Your task to perform on an android device: Search for Mexican restaurants on Maps Image 0: 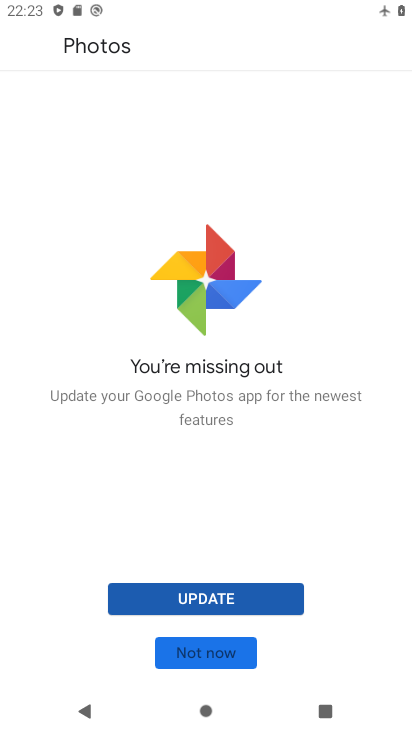
Step 0: press back button
Your task to perform on an android device: Search for Mexican restaurants on Maps Image 1: 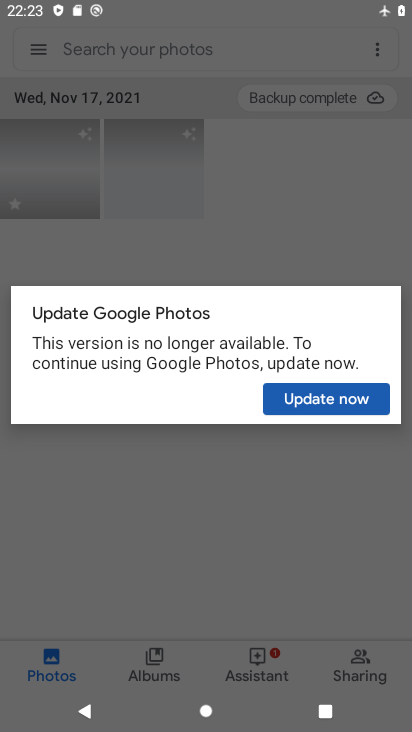
Step 1: press home button
Your task to perform on an android device: Search for Mexican restaurants on Maps Image 2: 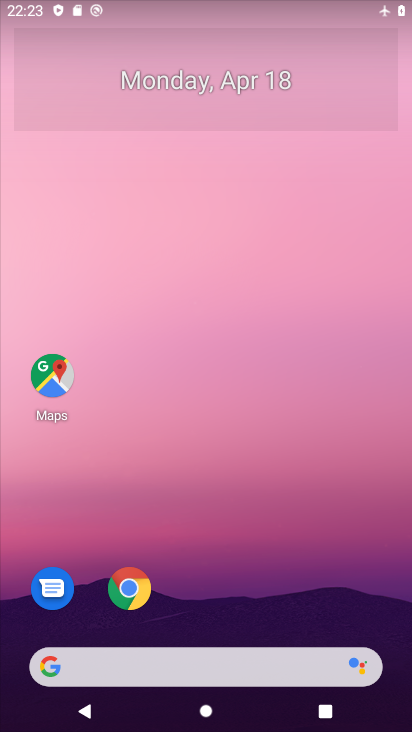
Step 2: click (45, 386)
Your task to perform on an android device: Search for Mexican restaurants on Maps Image 3: 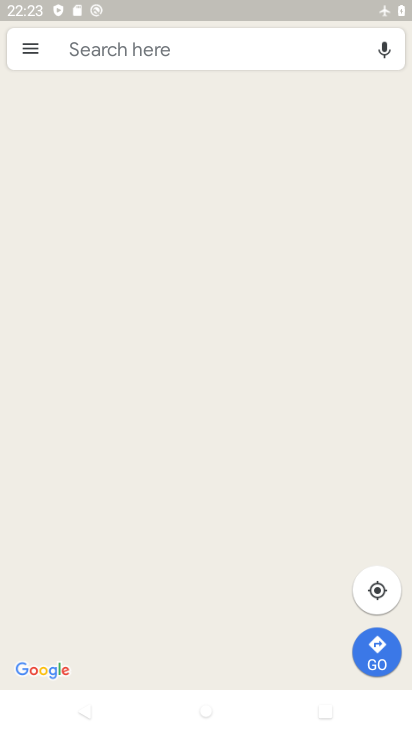
Step 3: click (102, 44)
Your task to perform on an android device: Search for Mexican restaurants on Maps Image 4: 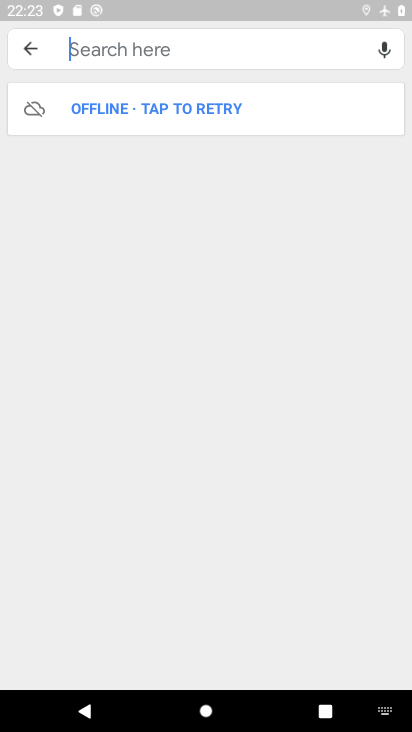
Step 4: type "mexican restaurants"
Your task to perform on an android device: Search for Mexican restaurants on Maps Image 5: 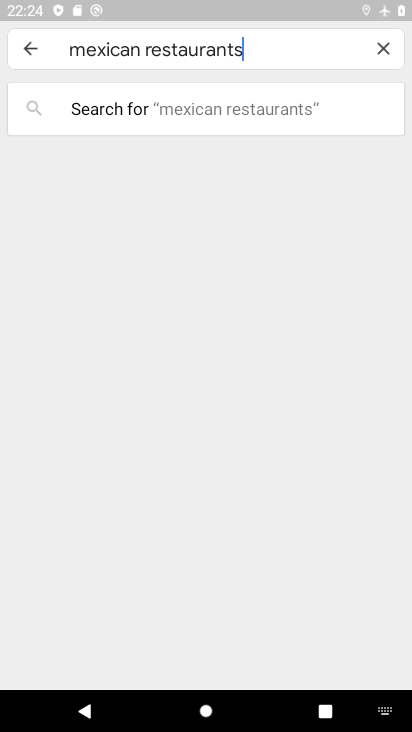
Step 5: task complete